Your task to perform on an android device: uninstall "eBay: The shopping marketplace" Image 0: 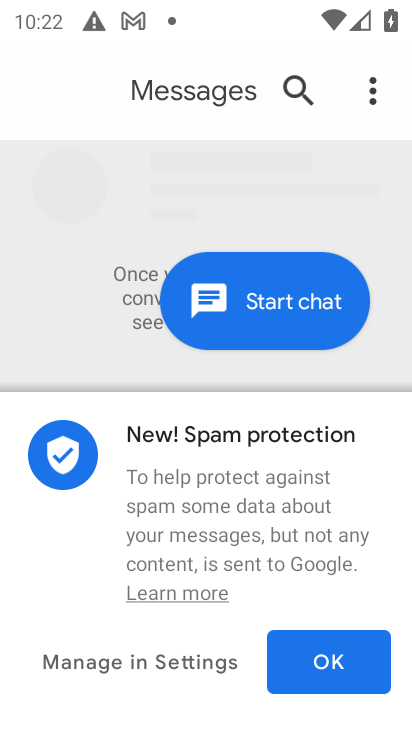
Step 0: press home button
Your task to perform on an android device: uninstall "eBay: The shopping marketplace" Image 1: 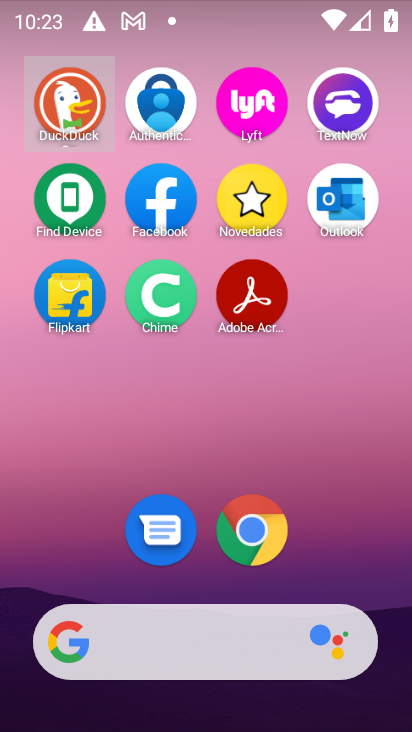
Step 1: drag from (216, 668) to (226, 210)
Your task to perform on an android device: uninstall "eBay: The shopping marketplace" Image 2: 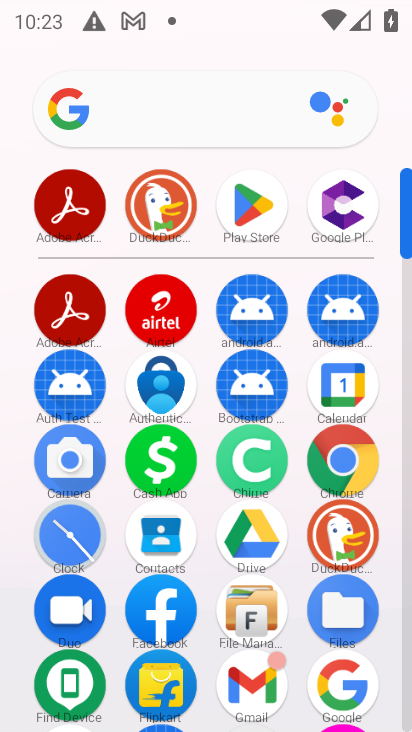
Step 2: click (253, 207)
Your task to perform on an android device: uninstall "eBay: The shopping marketplace" Image 3: 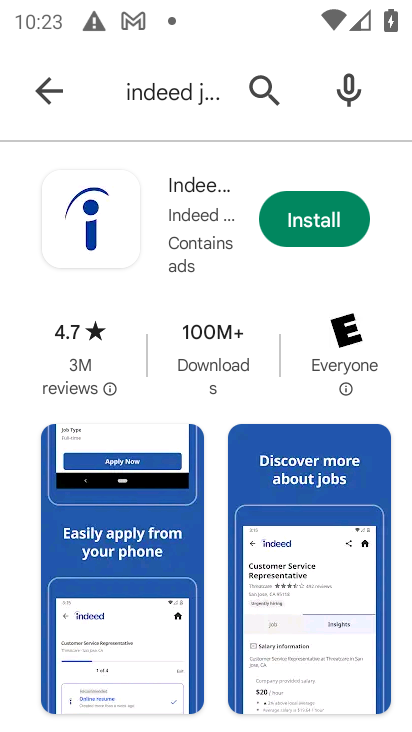
Step 3: click (248, 85)
Your task to perform on an android device: uninstall "eBay: The shopping marketplace" Image 4: 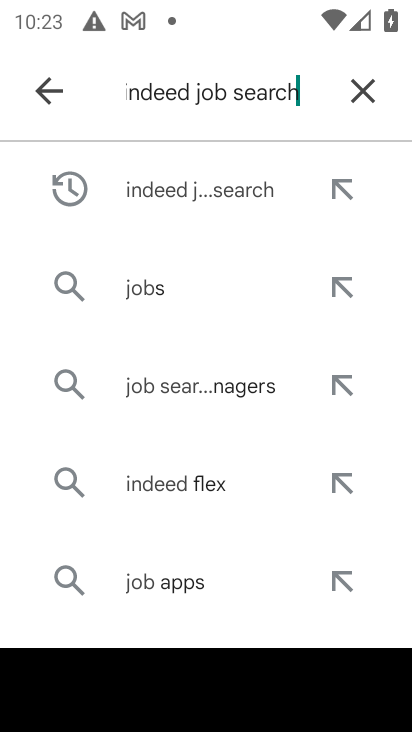
Step 4: click (372, 90)
Your task to perform on an android device: uninstall "eBay: The shopping marketplace" Image 5: 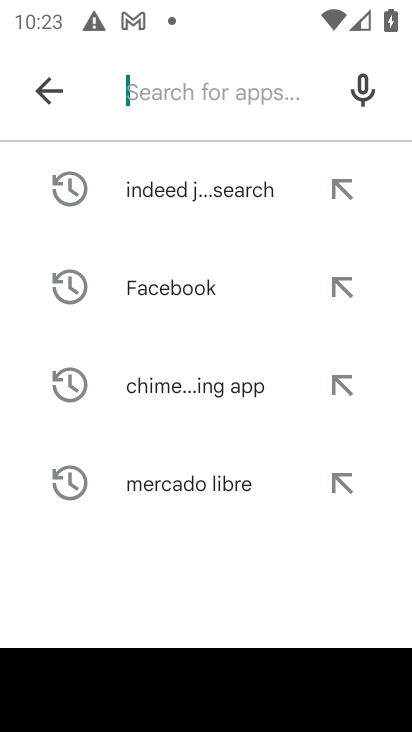
Step 5: type "ebay "
Your task to perform on an android device: uninstall "eBay: The shopping marketplace" Image 6: 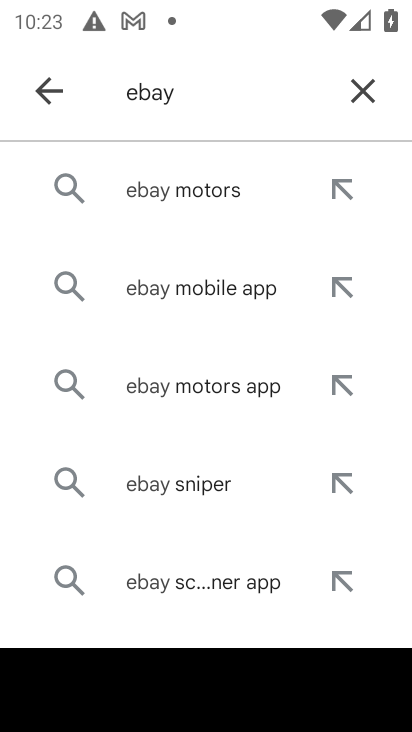
Step 6: type ""
Your task to perform on an android device: uninstall "eBay: The shopping marketplace" Image 7: 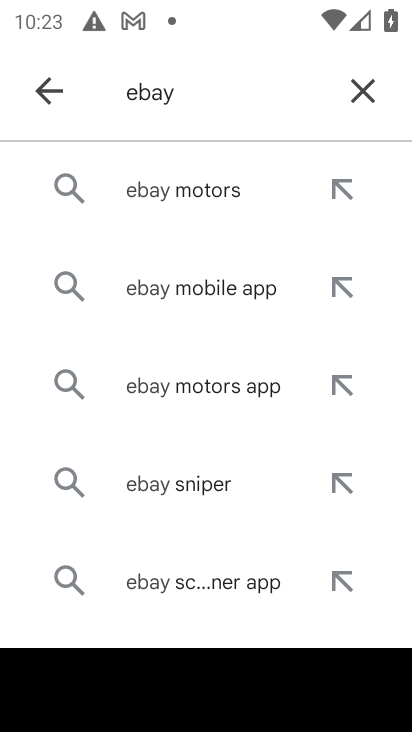
Step 7: press enter
Your task to perform on an android device: uninstall "eBay: The shopping marketplace" Image 8: 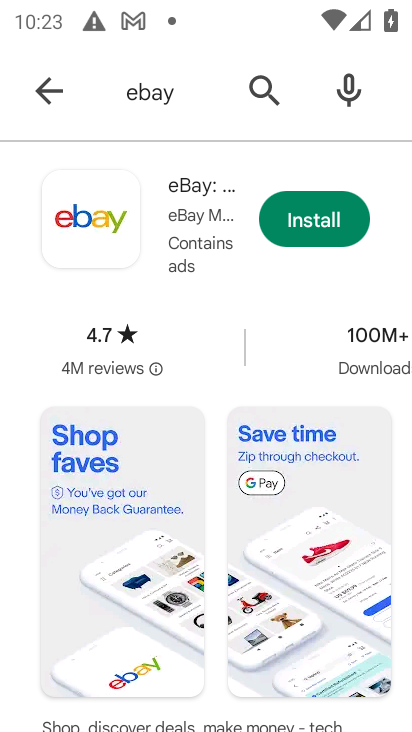
Step 8: task complete